Your task to perform on an android device: turn on data saver in the chrome app Image 0: 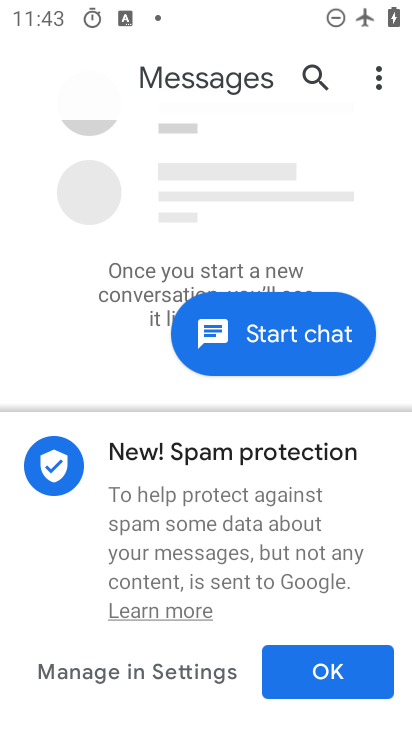
Step 0: press home button
Your task to perform on an android device: turn on data saver in the chrome app Image 1: 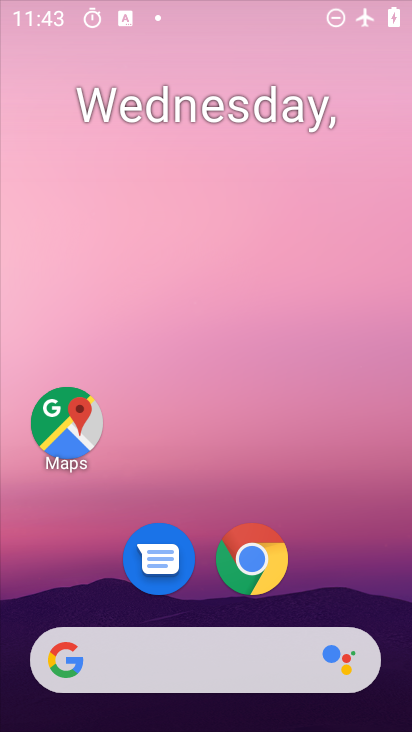
Step 1: drag from (211, 591) to (247, 129)
Your task to perform on an android device: turn on data saver in the chrome app Image 2: 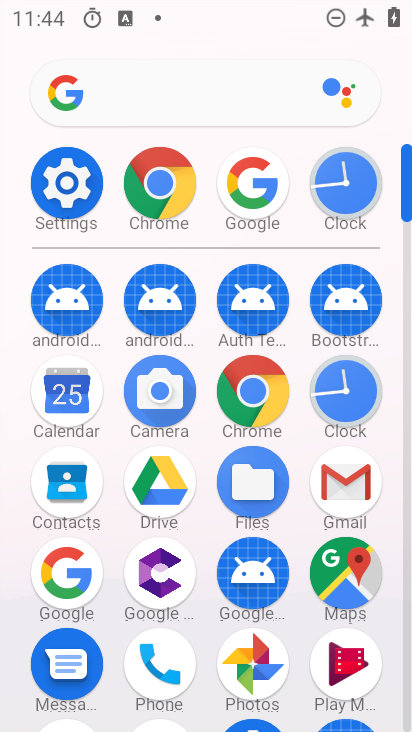
Step 2: click (256, 405)
Your task to perform on an android device: turn on data saver in the chrome app Image 3: 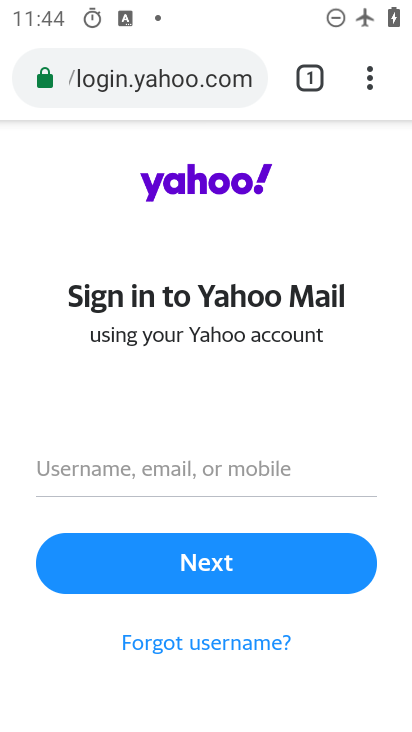
Step 3: click (374, 70)
Your task to perform on an android device: turn on data saver in the chrome app Image 4: 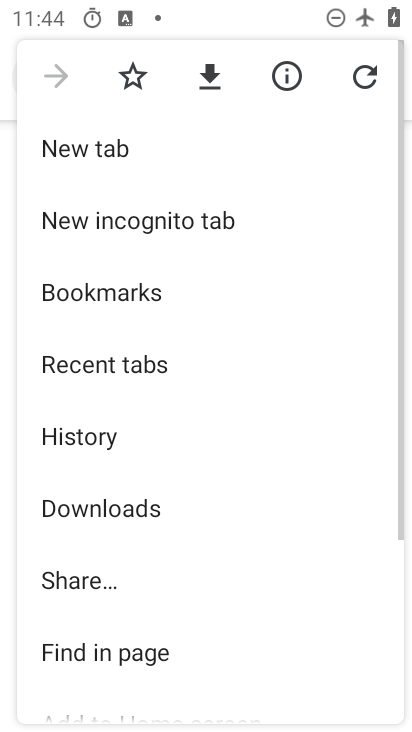
Step 4: drag from (152, 563) to (263, 128)
Your task to perform on an android device: turn on data saver in the chrome app Image 5: 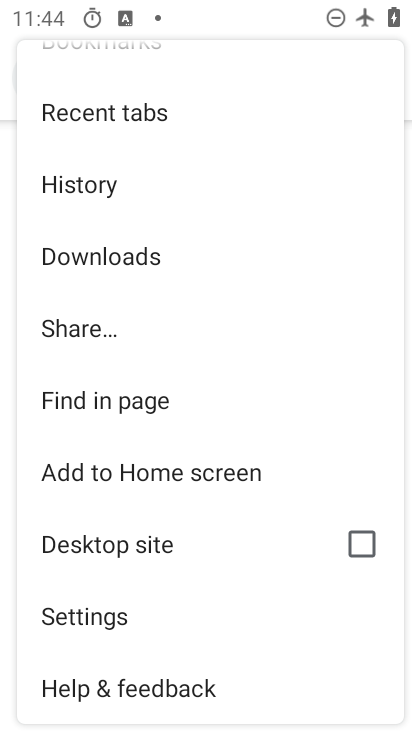
Step 5: click (133, 619)
Your task to perform on an android device: turn on data saver in the chrome app Image 6: 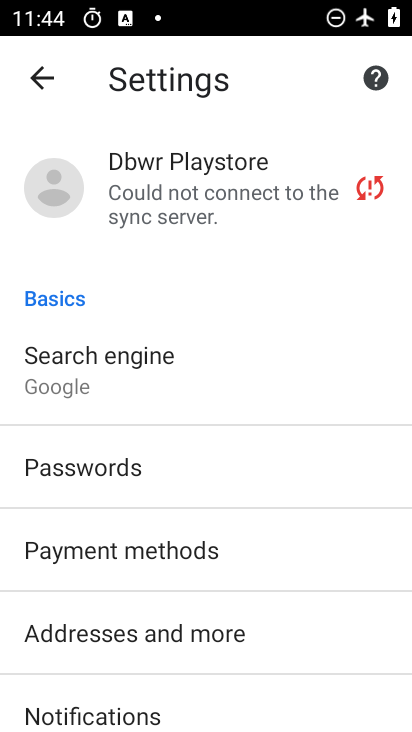
Step 6: drag from (158, 620) to (248, 231)
Your task to perform on an android device: turn on data saver in the chrome app Image 7: 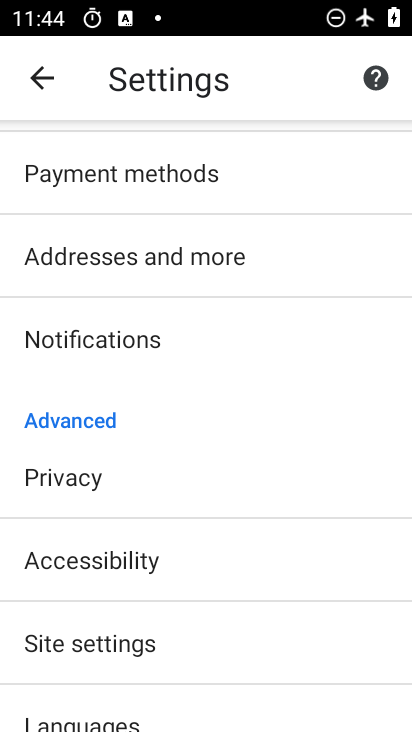
Step 7: drag from (195, 553) to (233, 326)
Your task to perform on an android device: turn on data saver in the chrome app Image 8: 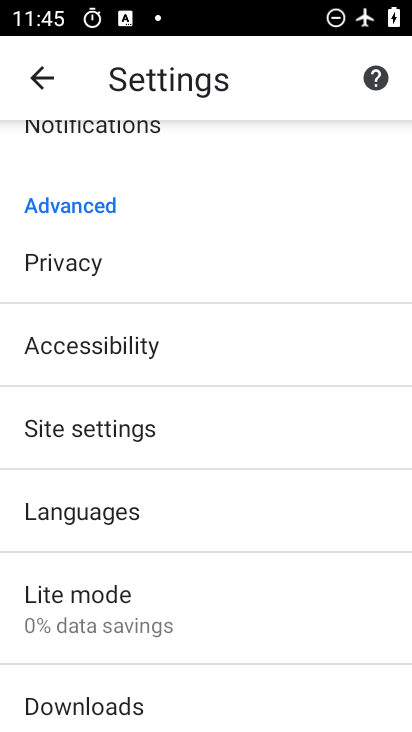
Step 8: drag from (185, 549) to (196, 432)
Your task to perform on an android device: turn on data saver in the chrome app Image 9: 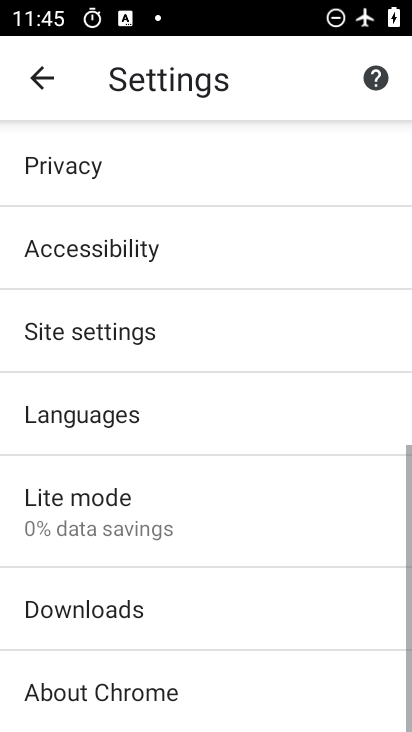
Step 9: click (129, 525)
Your task to perform on an android device: turn on data saver in the chrome app Image 10: 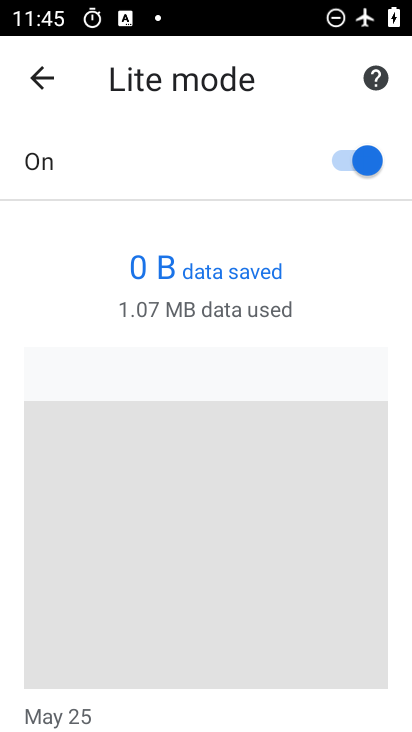
Step 10: task complete